Your task to perform on an android device: Open Chrome and go to the settings page Image 0: 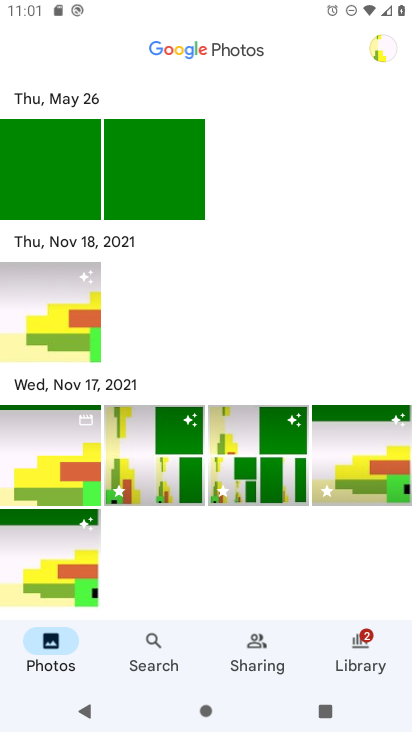
Step 0: press home button
Your task to perform on an android device: Open Chrome and go to the settings page Image 1: 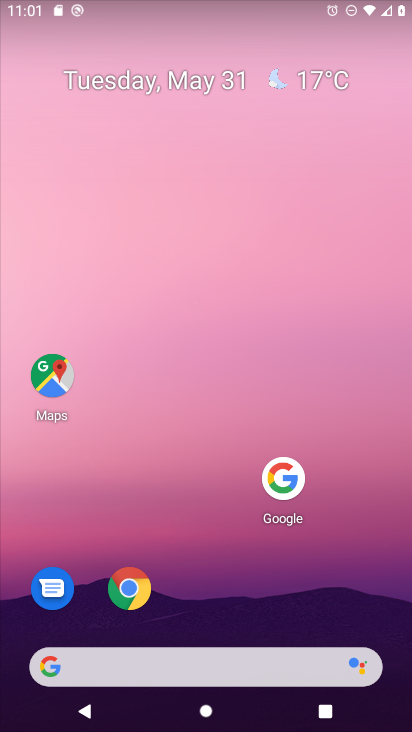
Step 1: click (136, 592)
Your task to perform on an android device: Open Chrome and go to the settings page Image 2: 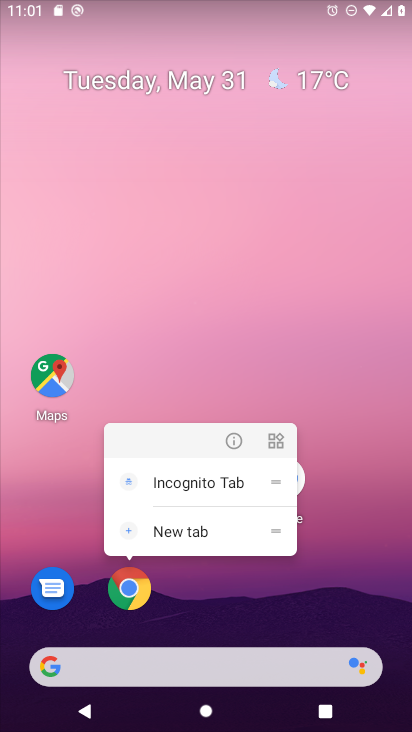
Step 2: click (124, 583)
Your task to perform on an android device: Open Chrome and go to the settings page Image 3: 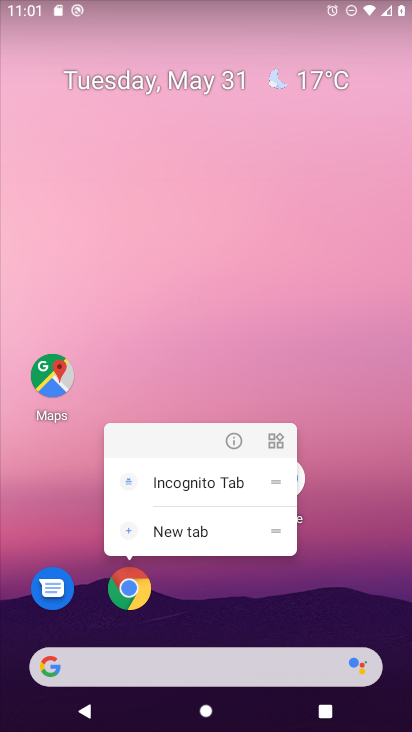
Step 3: click (126, 589)
Your task to perform on an android device: Open Chrome and go to the settings page Image 4: 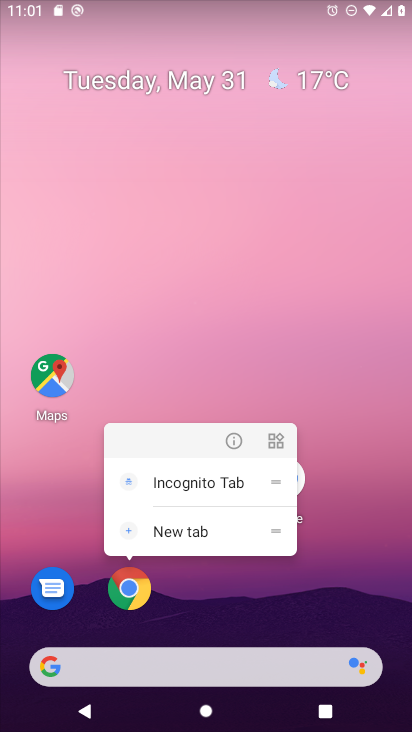
Step 4: click (126, 594)
Your task to perform on an android device: Open Chrome and go to the settings page Image 5: 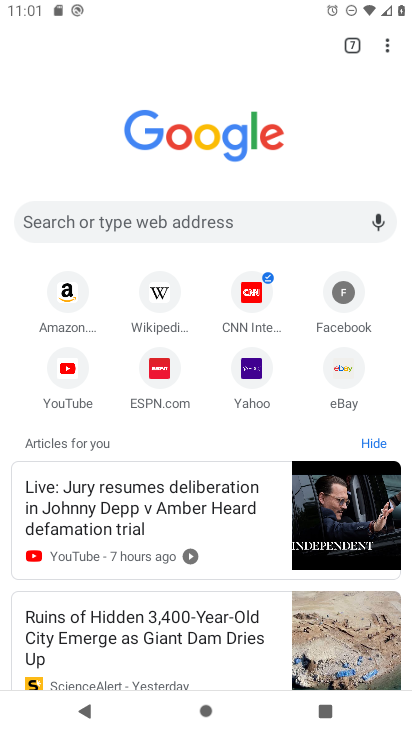
Step 5: task complete